Your task to perform on an android device: Open Google Maps and go to "Timeline" Image 0: 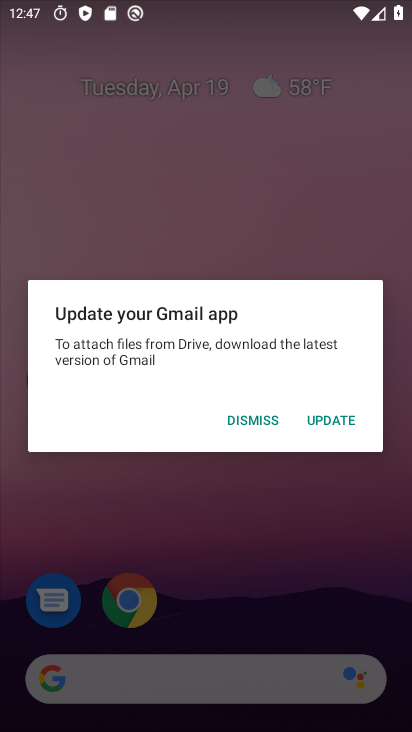
Step 0: press home button
Your task to perform on an android device: Open Google Maps and go to "Timeline" Image 1: 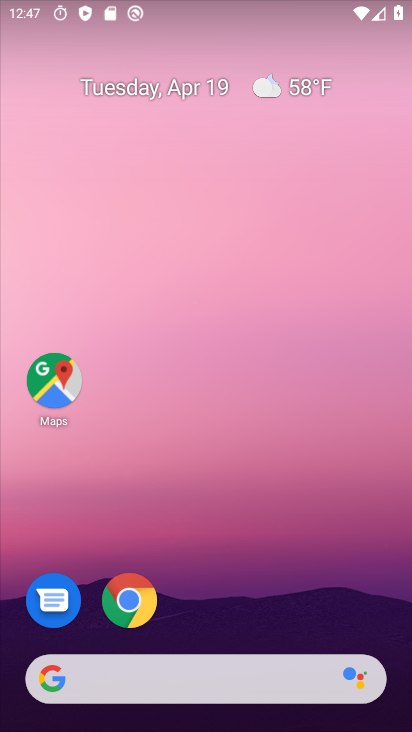
Step 1: drag from (198, 685) to (281, 279)
Your task to perform on an android device: Open Google Maps and go to "Timeline" Image 2: 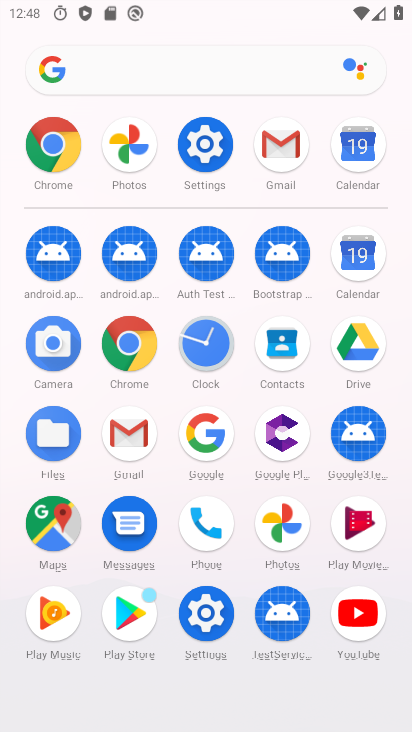
Step 2: click (67, 529)
Your task to perform on an android device: Open Google Maps and go to "Timeline" Image 3: 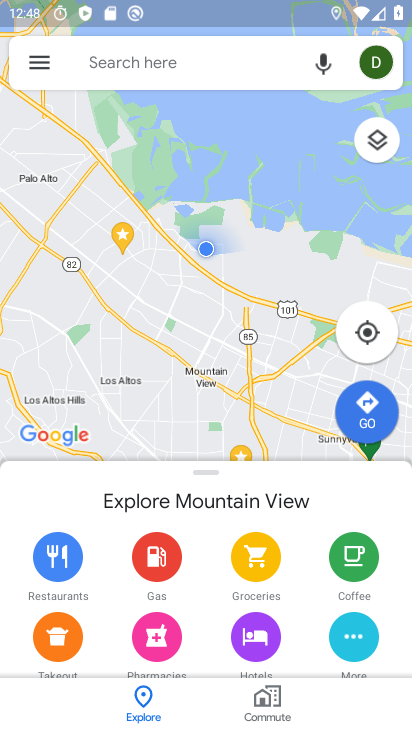
Step 3: click (44, 73)
Your task to perform on an android device: Open Google Maps and go to "Timeline" Image 4: 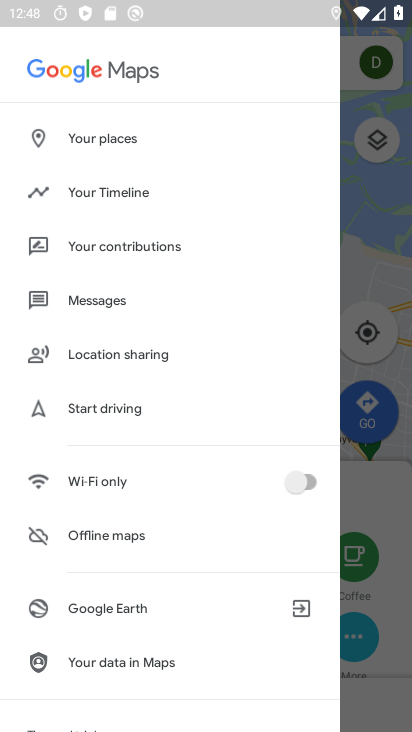
Step 4: click (66, 199)
Your task to perform on an android device: Open Google Maps and go to "Timeline" Image 5: 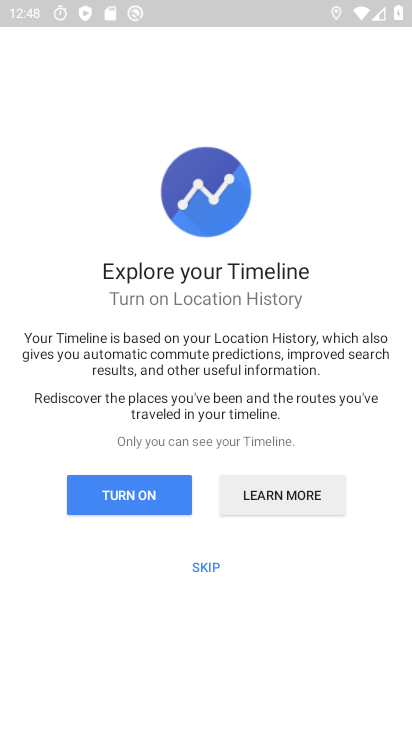
Step 5: click (208, 562)
Your task to perform on an android device: Open Google Maps and go to "Timeline" Image 6: 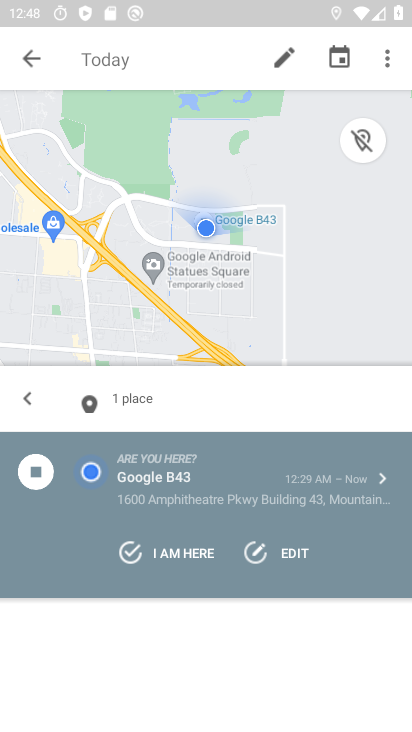
Step 6: task complete